Your task to perform on an android device: turn off data saver in the chrome app Image 0: 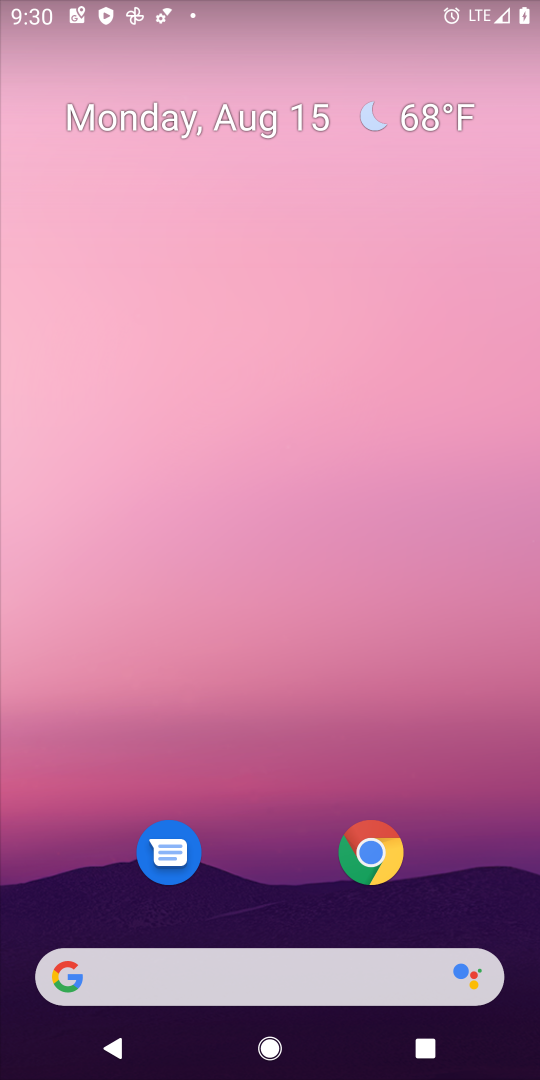
Step 0: click (371, 852)
Your task to perform on an android device: turn off data saver in the chrome app Image 1: 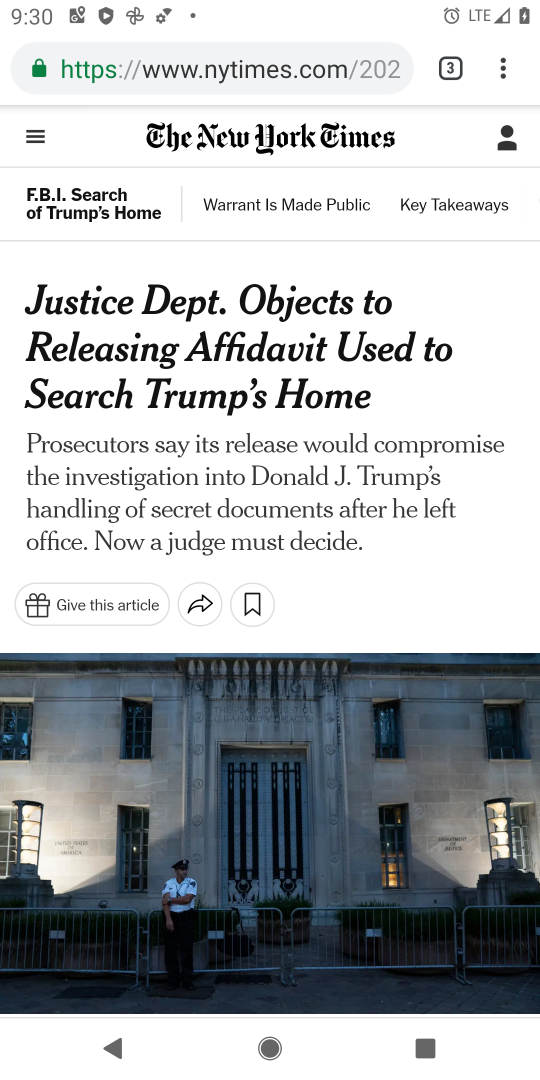
Step 1: click (509, 72)
Your task to perform on an android device: turn off data saver in the chrome app Image 2: 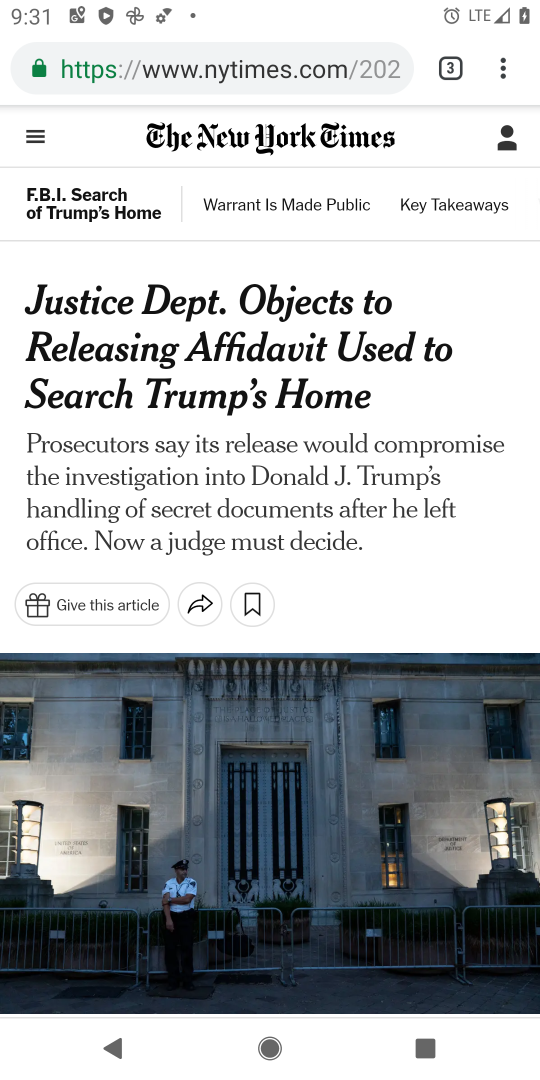
Step 2: drag from (509, 72) to (323, 918)
Your task to perform on an android device: turn off data saver in the chrome app Image 3: 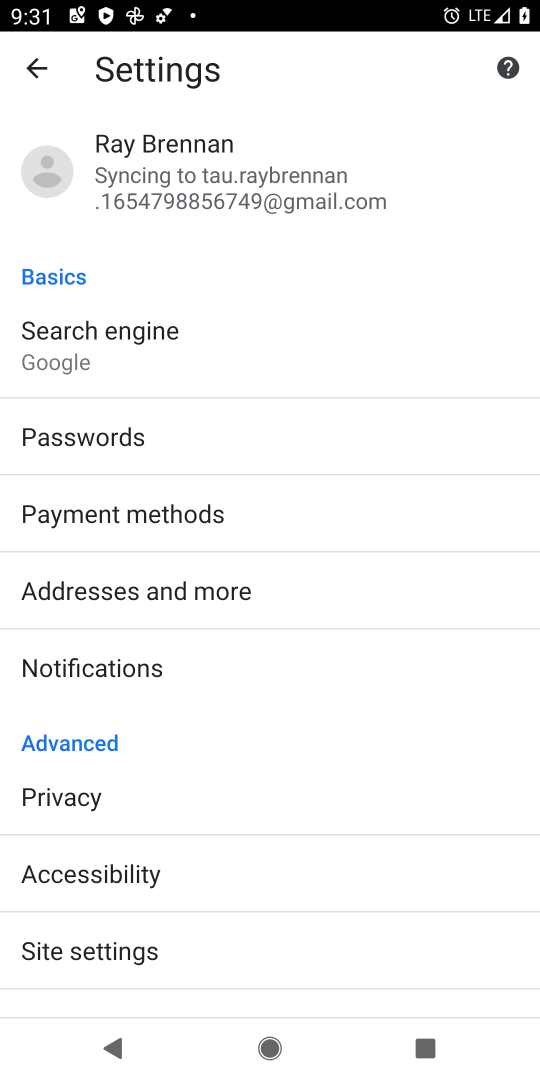
Step 3: drag from (192, 917) to (319, 581)
Your task to perform on an android device: turn off data saver in the chrome app Image 4: 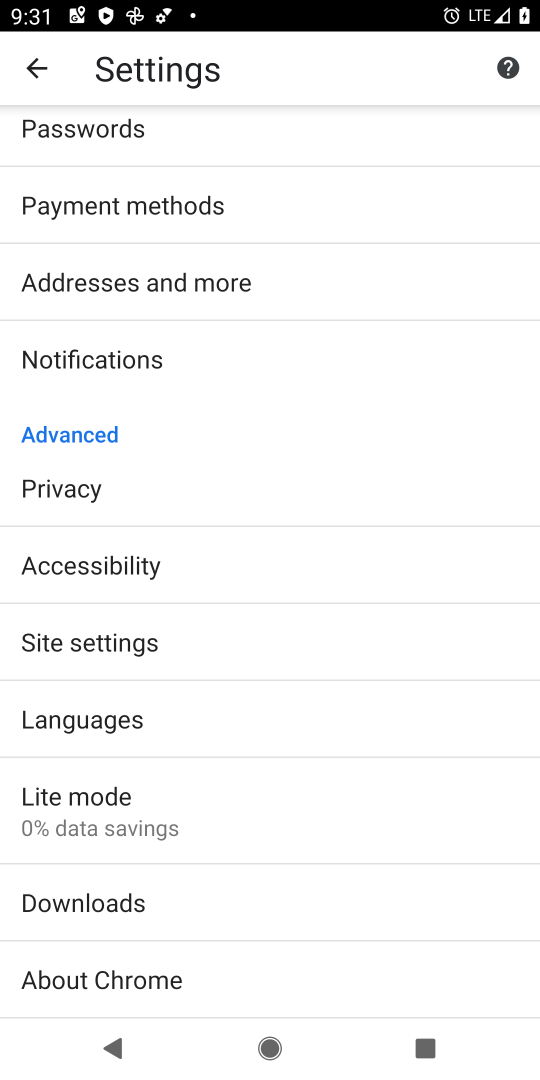
Step 4: click (119, 823)
Your task to perform on an android device: turn off data saver in the chrome app Image 5: 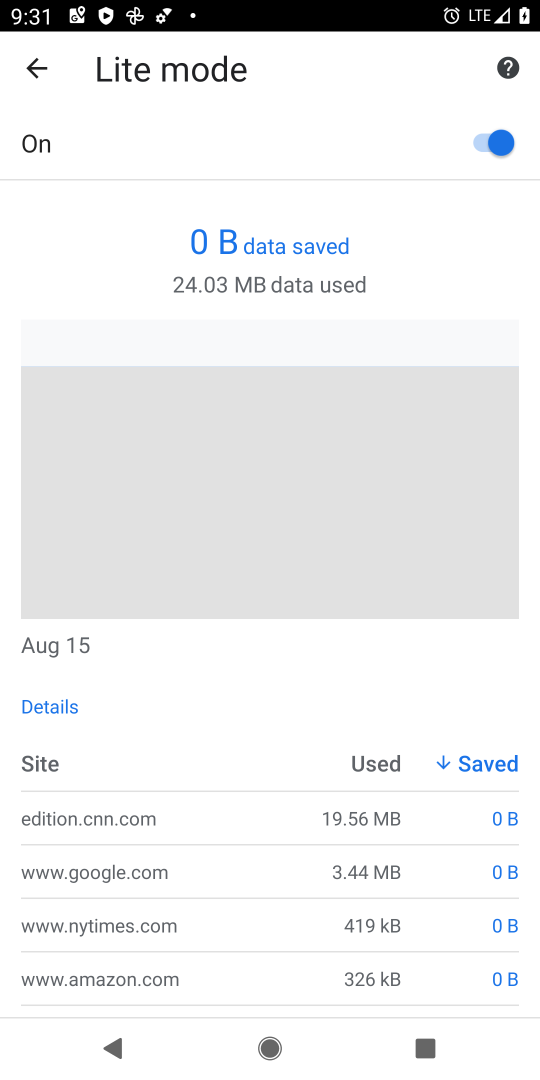
Step 5: click (477, 141)
Your task to perform on an android device: turn off data saver in the chrome app Image 6: 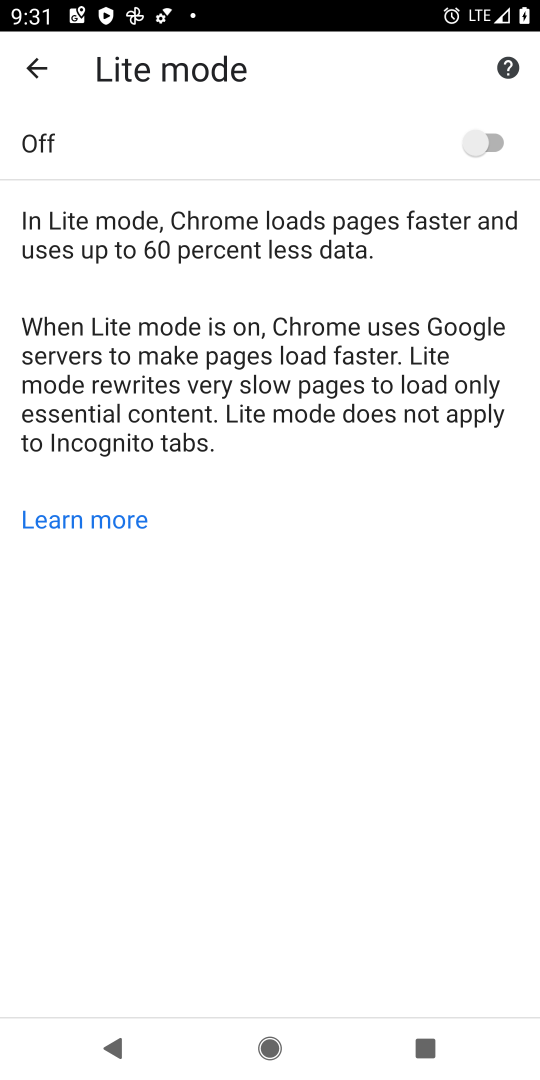
Step 6: task complete